Your task to perform on an android device: turn on bluetooth scan Image 0: 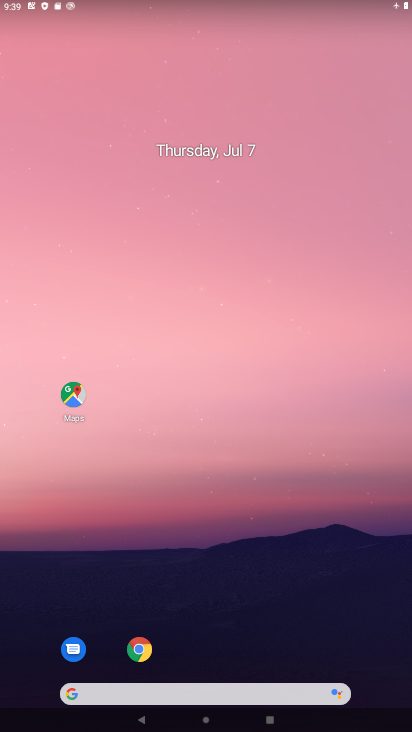
Step 0: drag from (239, 719) to (220, 186)
Your task to perform on an android device: turn on bluetooth scan Image 1: 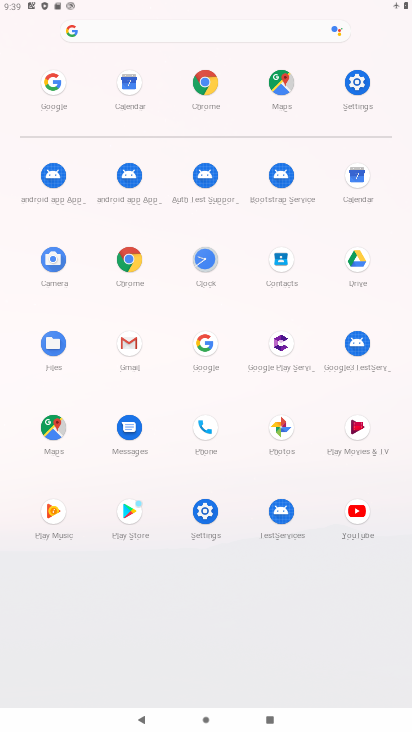
Step 1: click (360, 85)
Your task to perform on an android device: turn on bluetooth scan Image 2: 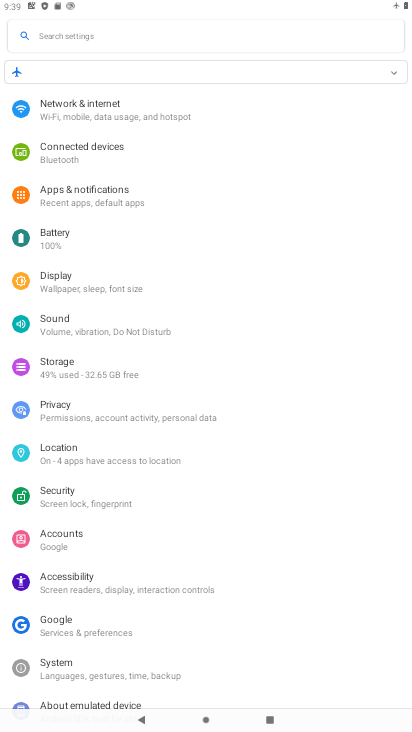
Step 2: click (49, 456)
Your task to perform on an android device: turn on bluetooth scan Image 3: 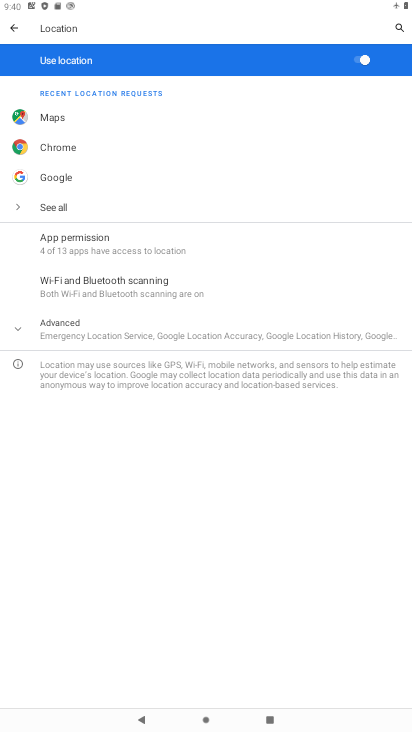
Step 3: click (162, 286)
Your task to perform on an android device: turn on bluetooth scan Image 4: 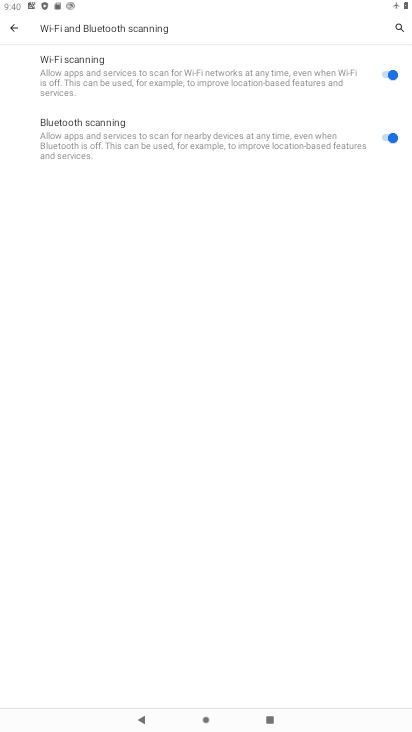
Step 4: task complete